Your task to perform on an android device: Clear the shopping cart on ebay. Search for acer nitro on ebay, select the first entry, and add it to the cart. Image 0: 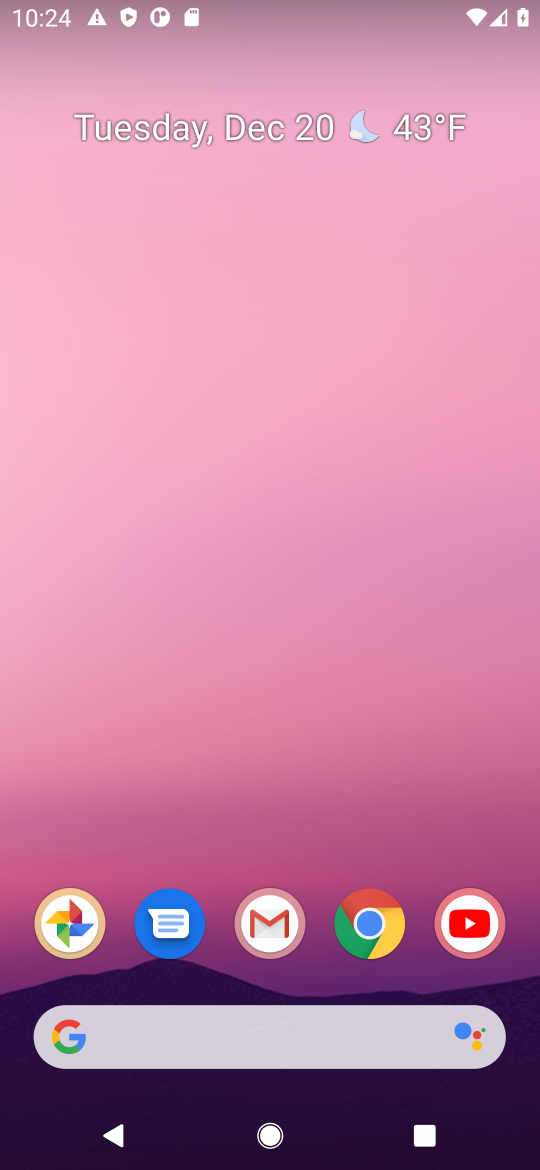
Step 0: click (382, 936)
Your task to perform on an android device: Clear the shopping cart on ebay. Search for acer nitro on ebay, select the first entry, and add it to the cart. Image 1: 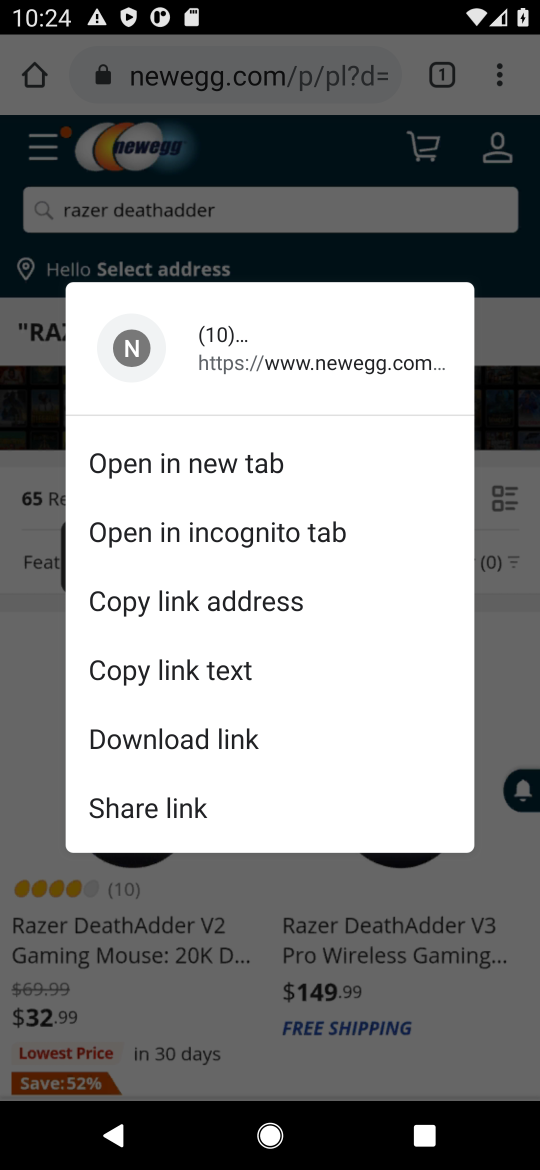
Step 1: click (247, 278)
Your task to perform on an android device: Clear the shopping cart on ebay. Search for acer nitro on ebay, select the first entry, and add it to the cart. Image 2: 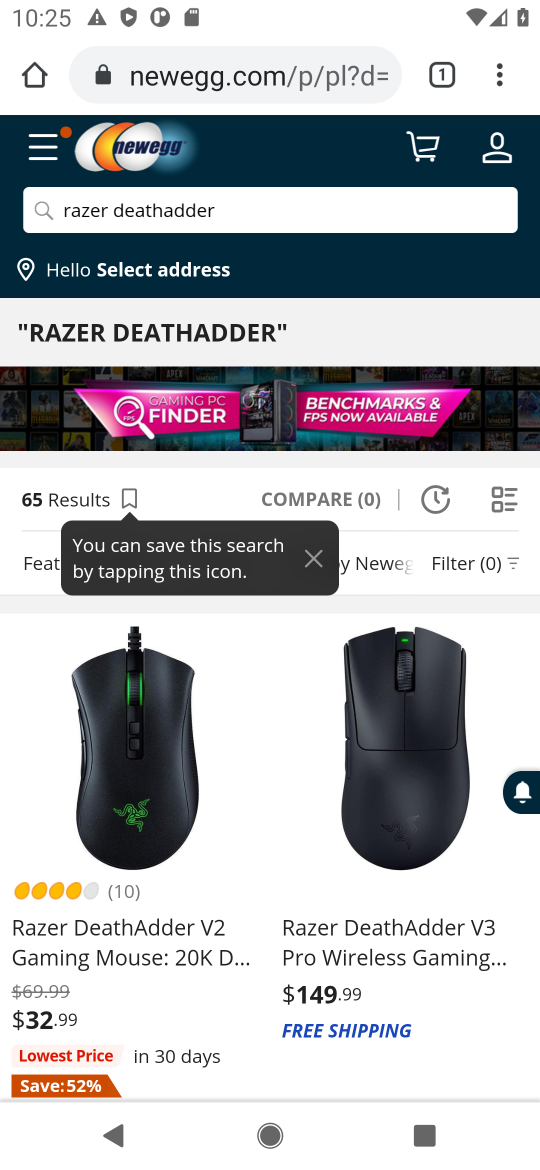
Step 2: click (93, 940)
Your task to perform on an android device: Clear the shopping cart on ebay. Search for acer nitro on ebay, select the first entry, and add it to the cart. Image 3: 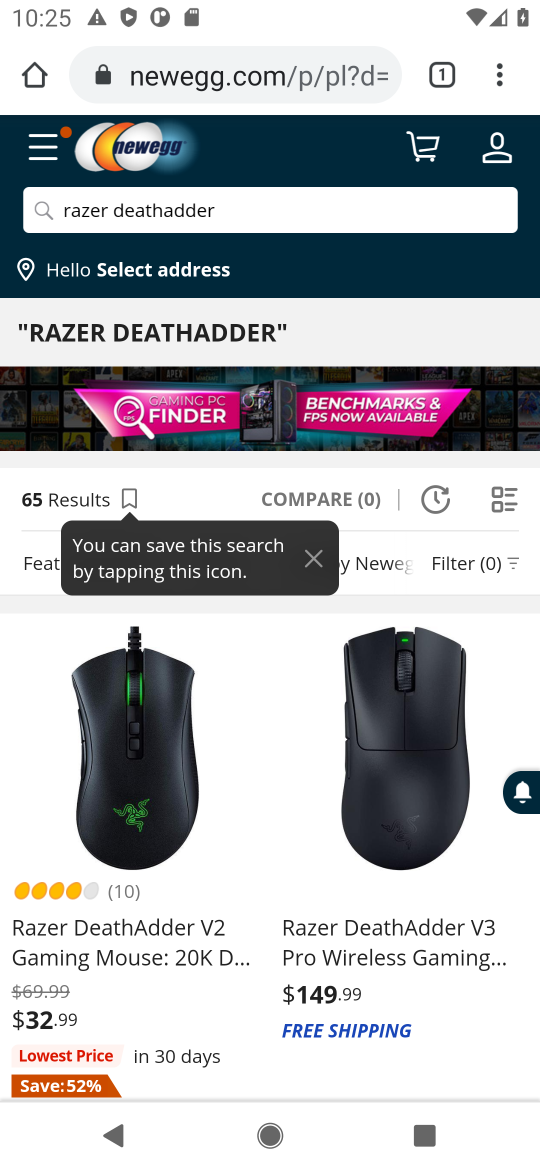
Step 3: click (93, 940)
Your task to perform on an android device: Clear the shopping cart on ebay. Search for acer nitro on ebay, select the first entry, and add it to the cart. Image 4: 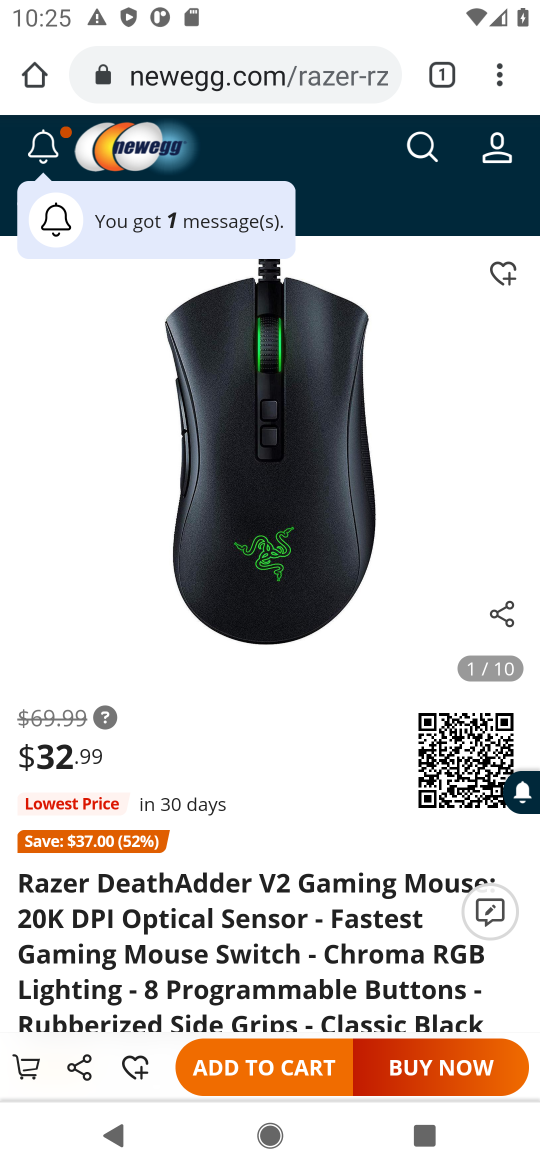
Step 4: click (237, 1064)
Your task to perform on an android device: Clear the shopping cart on ebay. Search for acer nitro on ebay, select the first entry, and add it to the cart. Image 5: 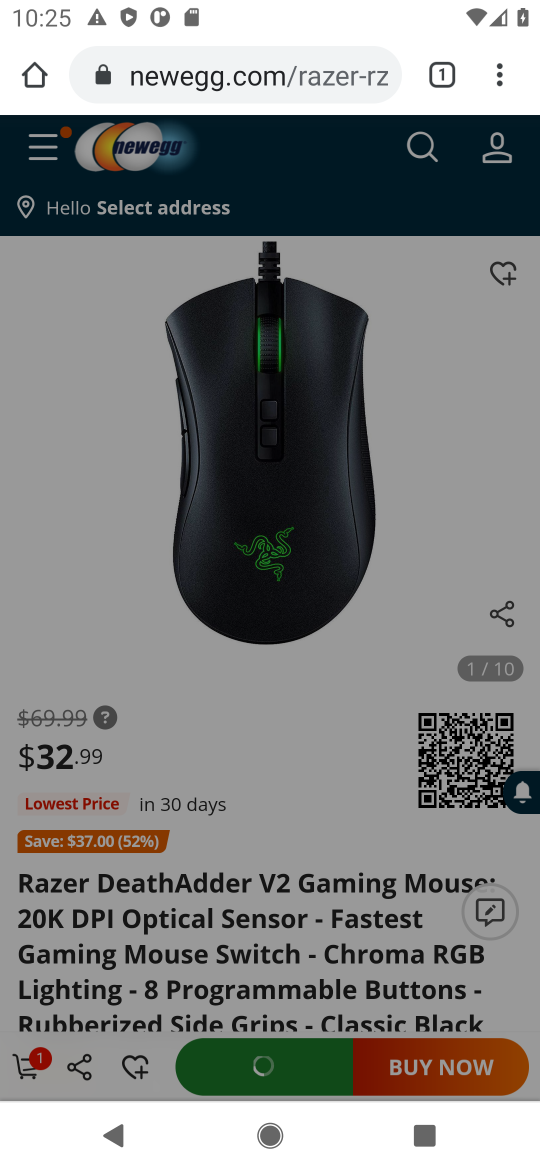
Step 5: task complete